Your task to perform on an android device: What's the weather like inToronto? Image 0: 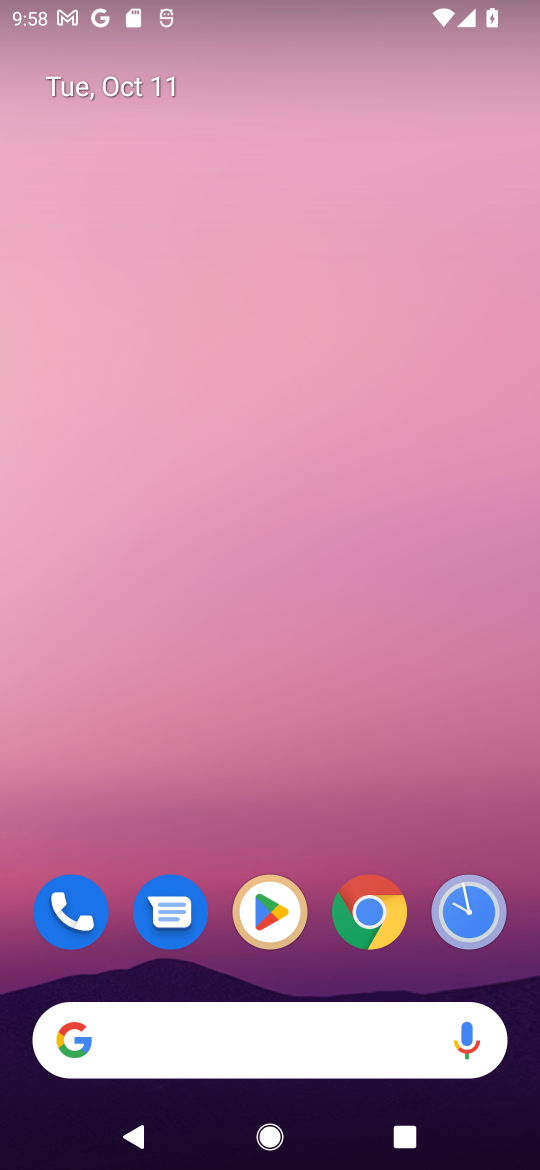
Step 0: click (378, 911)
Your task to perform on an android device: What's the weather like inToronto? Image 1: 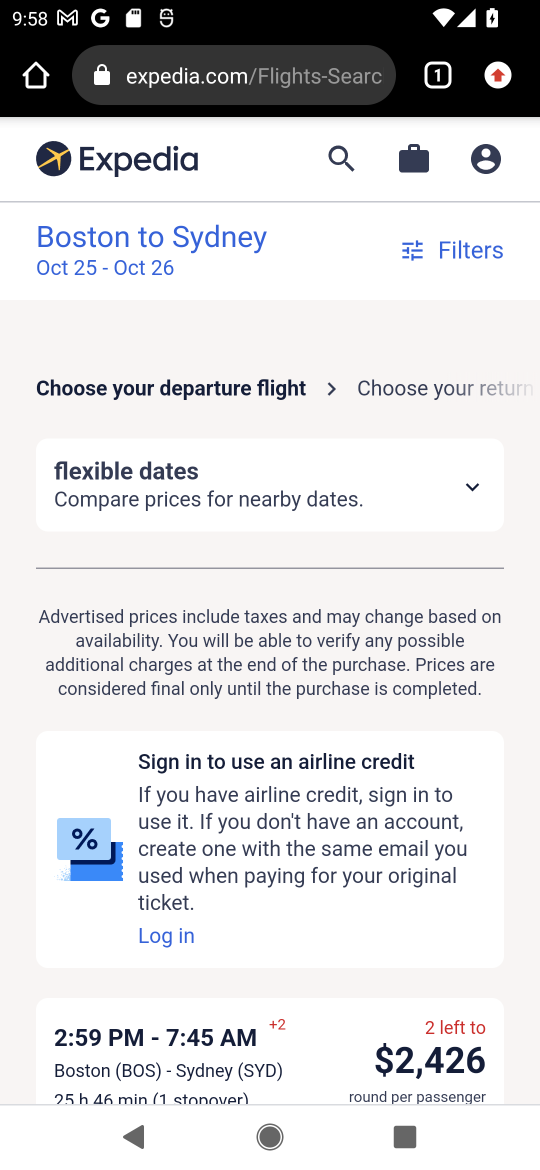
Step 1: click (213, 49)
Your task to perform on an android device: What's the weather like inToronto? Image 2: 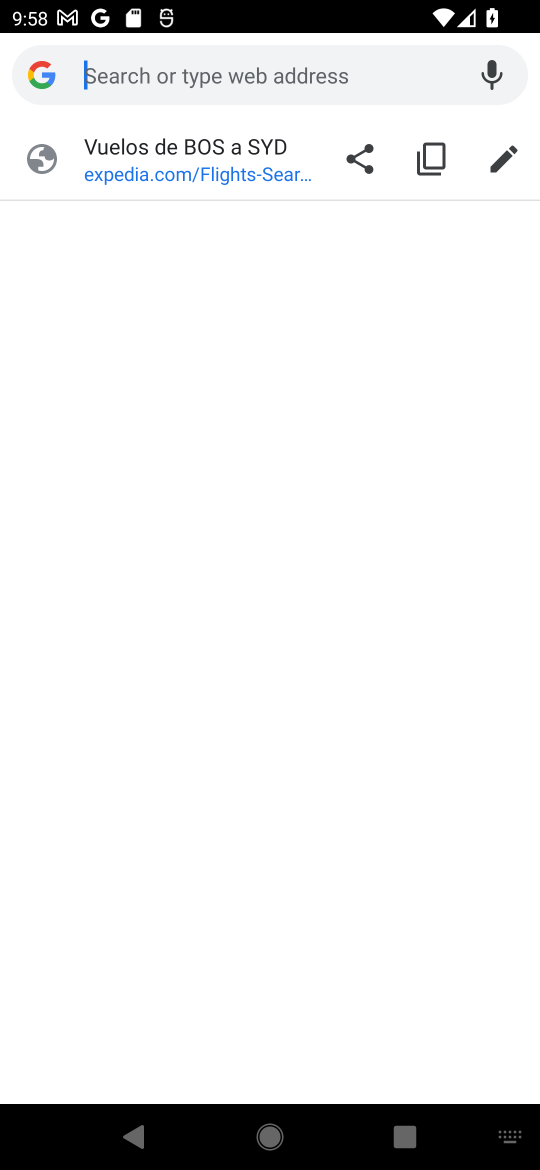
Step 2: type "weather like inToronto"
Your task to perform on an android device: What's the weather like inToronto? Image 3: 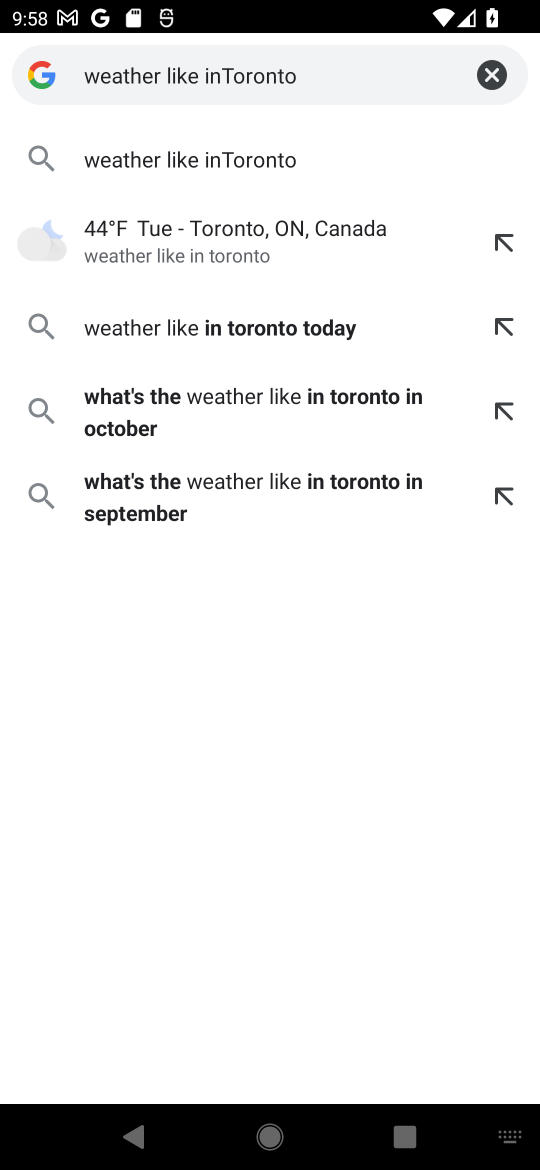
Step 3: click (159, 151)
Your task to perform on an android device: What's the weather like inToronto? Image 4: 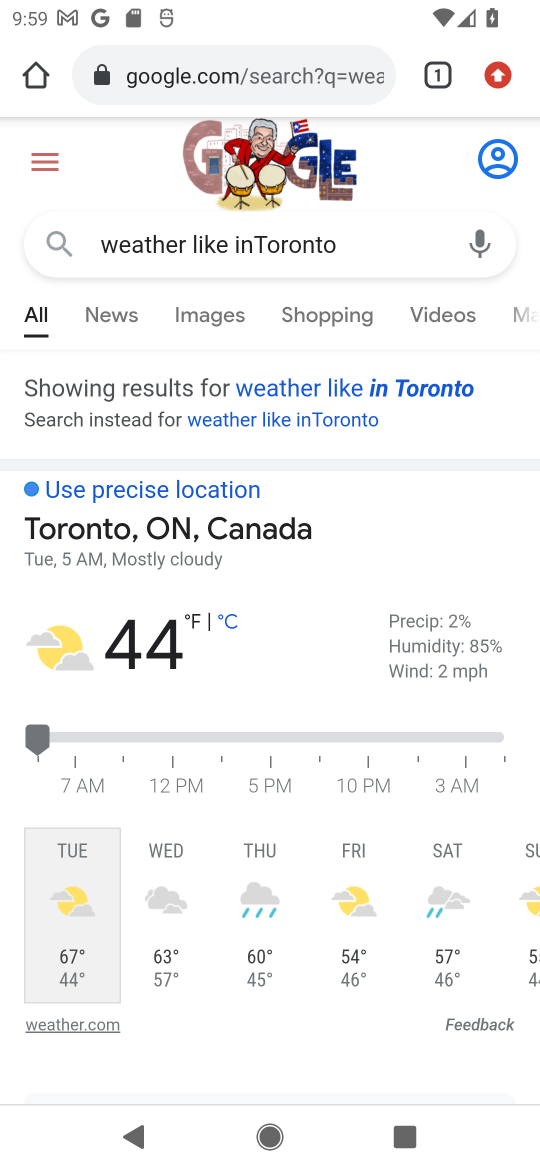
Step 4: task complete